Your task to perform on an android device: Go to location settings Image 0: 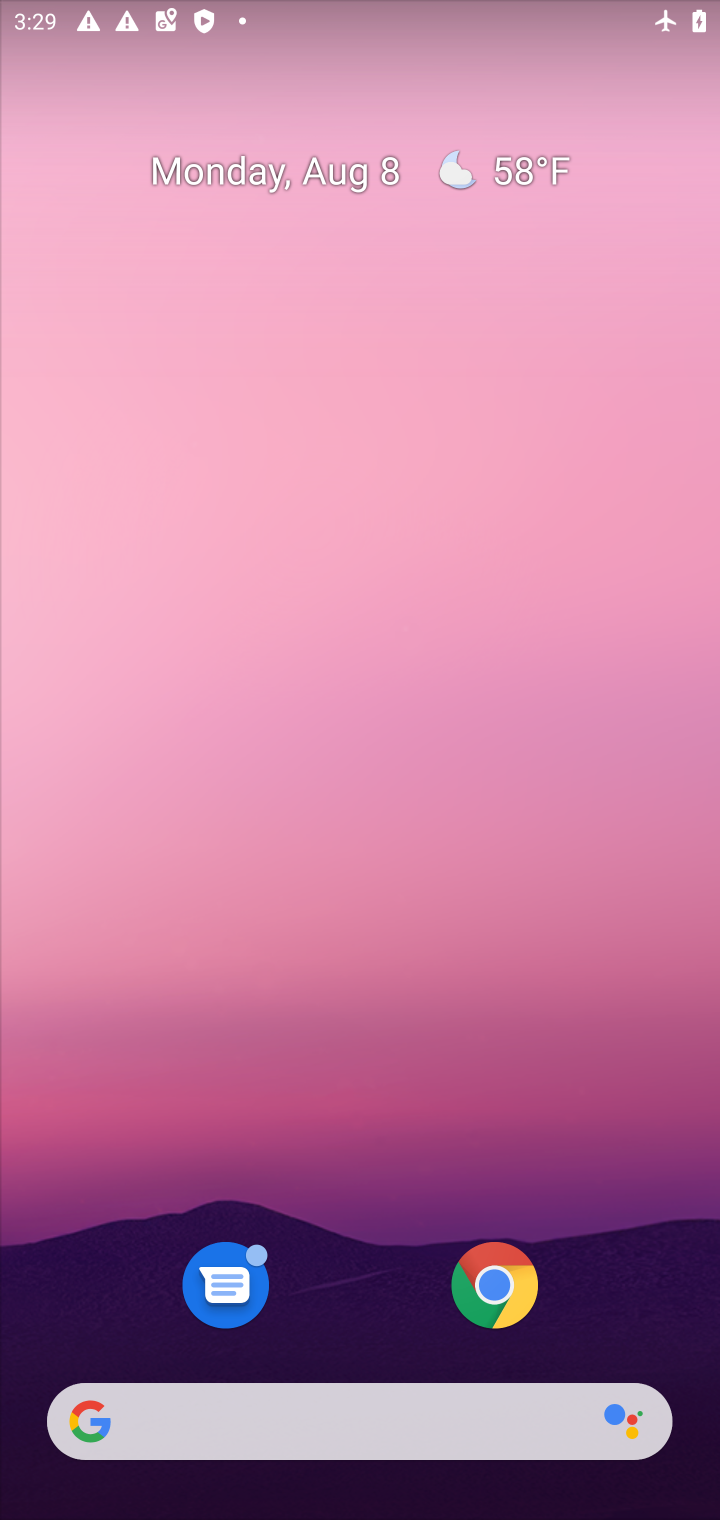
Step 0: drag from (387, 1199) to (459, 665)
Your task to perform on an android device: Go to location settings Image 1: 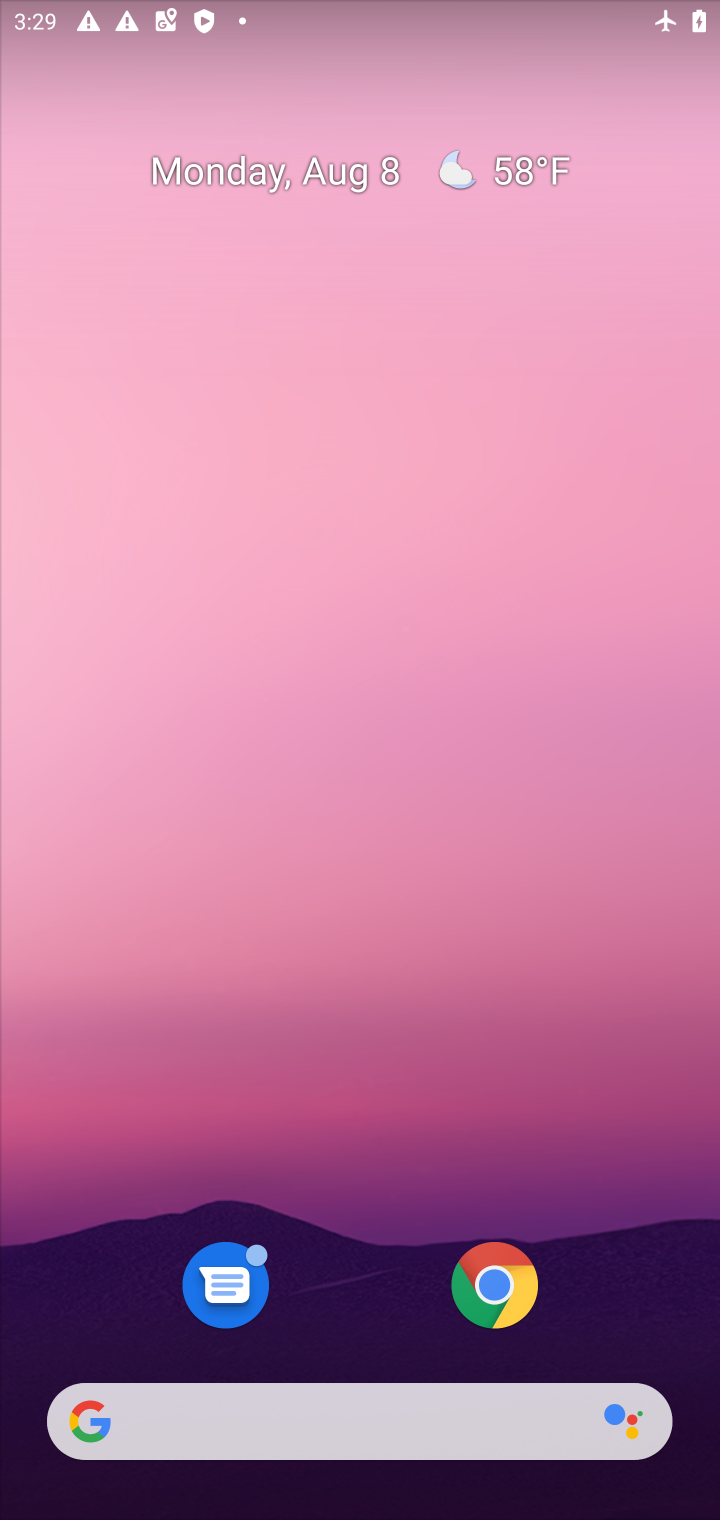
Step 1: drag from (390, 1311) to (522, 5)
Your task to perform on an android device: Go to location settings Image 2: 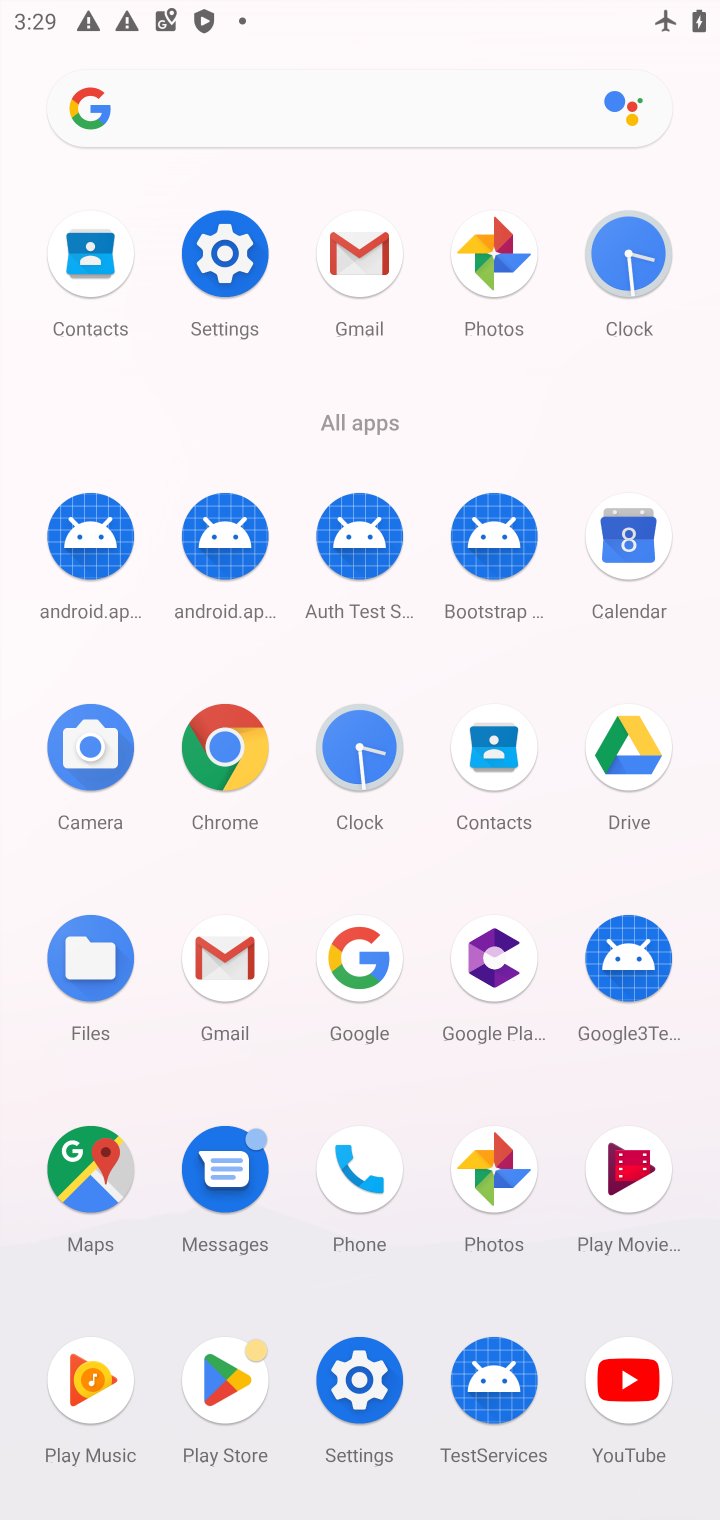
Step 2: click (209, 274)
Your task to perform on an android device: Go to location settings Image 3: 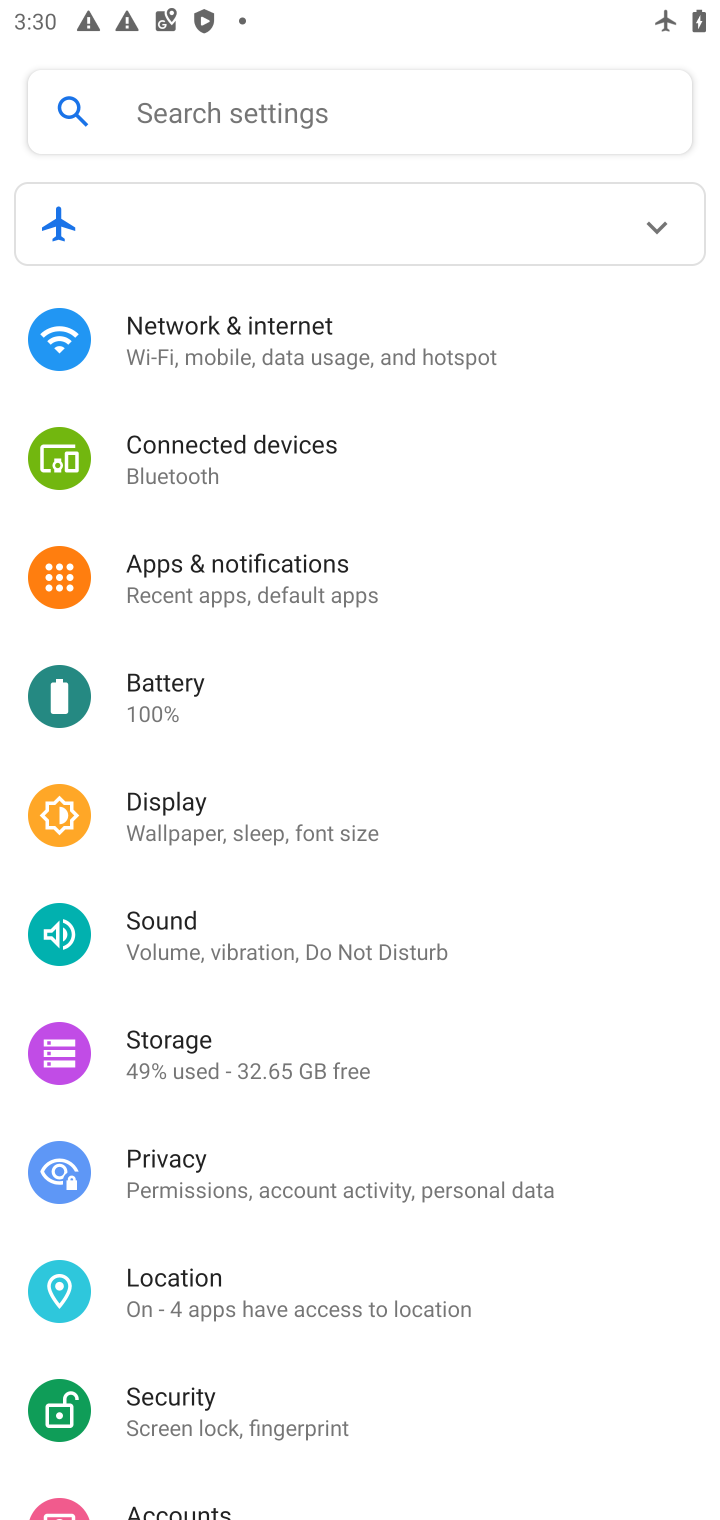
Step 3: click (210, 1296)
Your task to perform on an android device: Go to location settings Image 4: 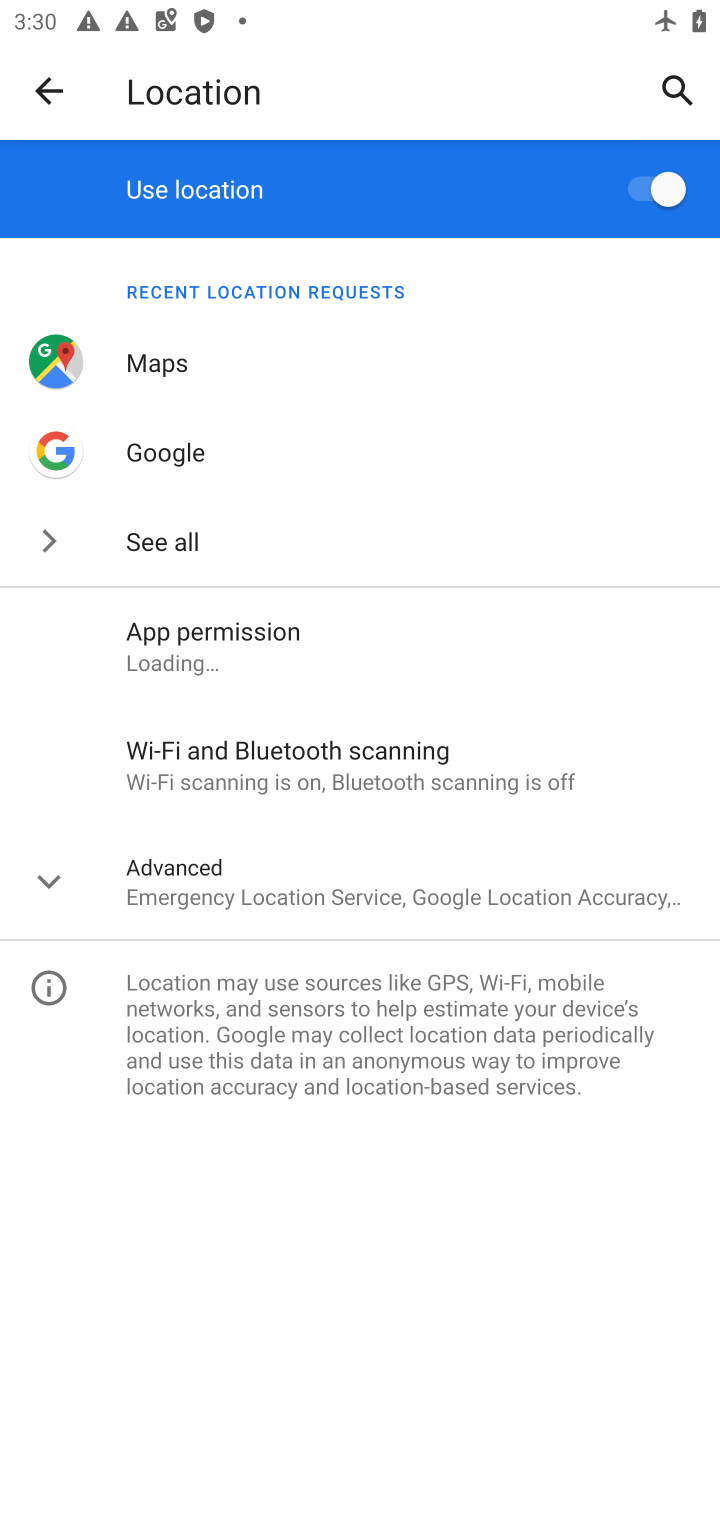
Step 4: task complete